Your task to perform on an android device: Clear the shopping cart on target.com. Search for logitech g502 on target.com, select the first entry, and add it to the cart. Image 0: 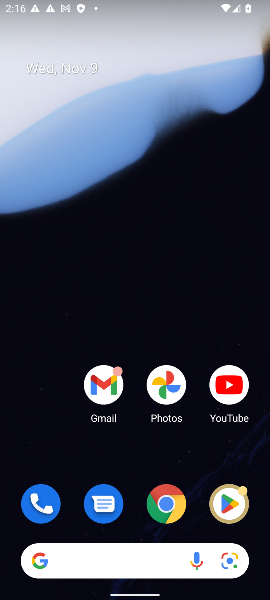
Step 0: click (168, 506)
Your task to perform on an android device: Clear the shopping cart on target.com. Search for logitech g502 on target.com, select the first entry, and add it to the cart. Image 1: 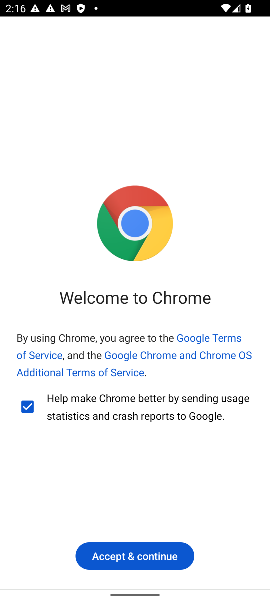
Step 1: click (141, 550)
Your task to perform on an android device: Clear the shopping cart on target.com. Search for logitech g502 on target.com, select the first entry, and add it to the cart. Image 2: 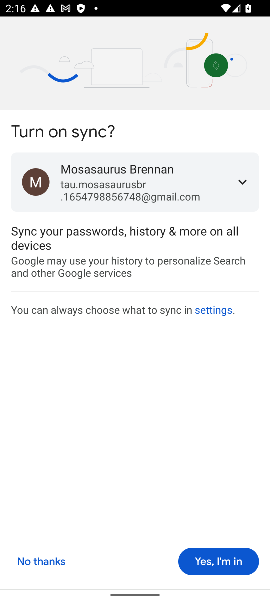
Step 2: click (196, 567)
Your task to perform on an android device: Clear the shopping cart on target.com. Search for logitech g502 on target.com, select the first entry, and add it to the cart. Image 3: 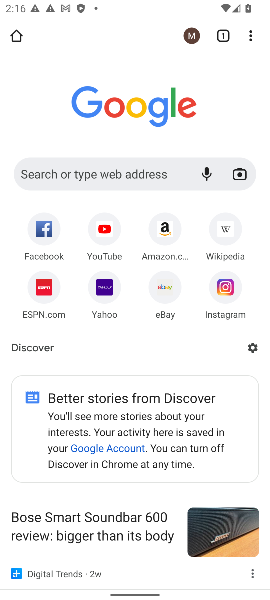
Step 3: click (96, 176)
Your task to perform on an android device: Clear the shopping cart on target.com. Search for logitech g502 on target.com, select the first entry, and add it to the cart. Image 4: 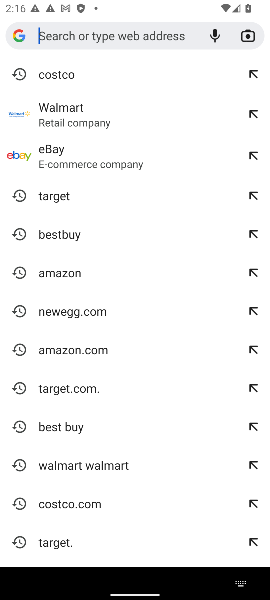
Step 4: click (57, 392)
Your task to perform on an android device: Clear the shopping cart on target.com. Search for logitech g502 on target.com, select the first entry, and add it to the cart. Image 5: 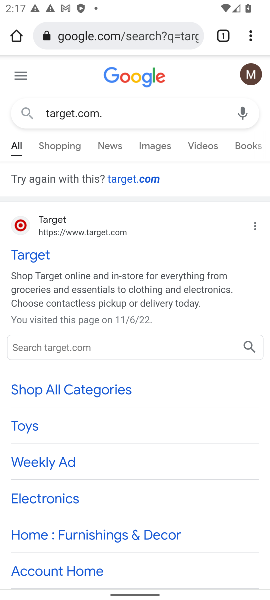
Step 5: click (20, 260)
Your task to perform on an android device: Clear the shopping cart on target.com. Search for logitech g502 on target.com, select the first entry, and add it to the cart. Image 6: 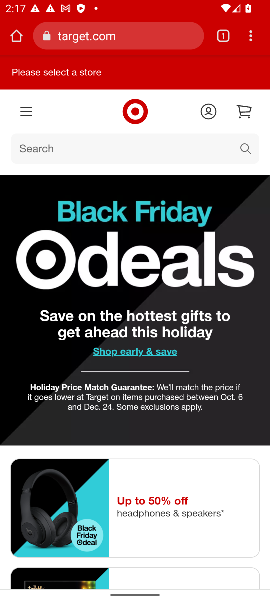
Step 6: click (251, 117)
Your task to perform on an android device: Clear the shopping cart on target.com. Search for logitech g502 on target.com, select the first entry, and add it to the cart. Image 7: 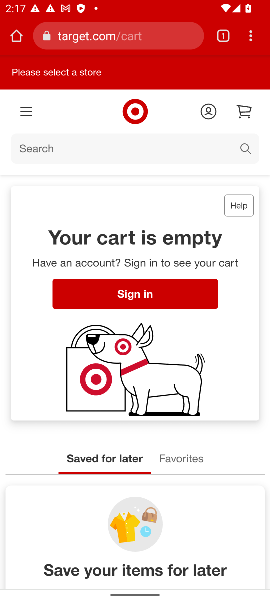
Step 7: click (247, 150)
Your task to perform on an android device: Clear the shopping cart on target.com. Search for logitech g502 on target.com, select the first entry, and add it to the cart. Image 8: 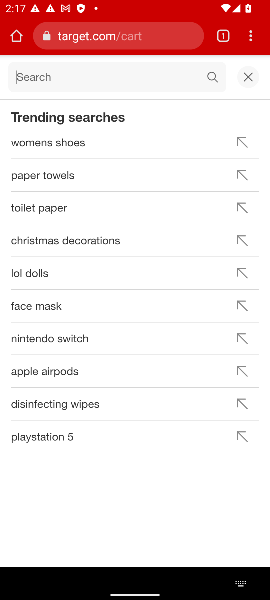
Step 8: type "logitech g502"
Your task to perform on an android device: Clear the shopping cart on target.com. Search for logitech g502 on target.com, select the first entry, and add it to the cart. Image 9: 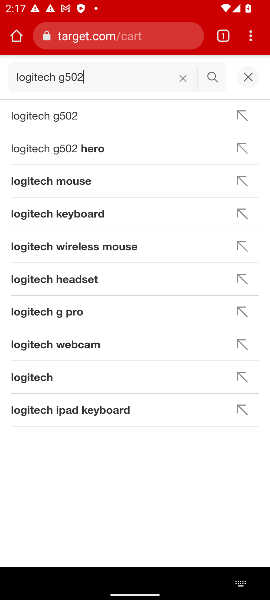
Step 9: click (38, 119)
Your task to perform on an android device: Clear the shopping cart on target.com. Search for logitech g502 on target.com, select the first entry, and add it to the cart. Image 10: 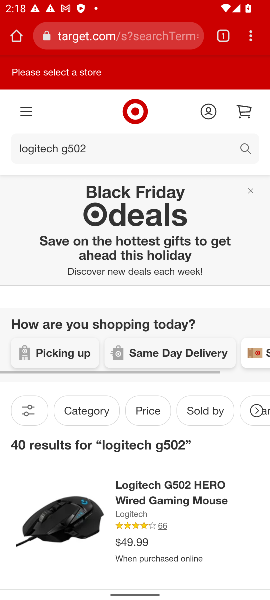
Step 10: drag from (95, 466) to (92, 304)
Your task to perform on an android device: Clear the shopping cart on target.com. Search for logitech g502 on target.com, select the first entry, and add it to the cart. Image 11: 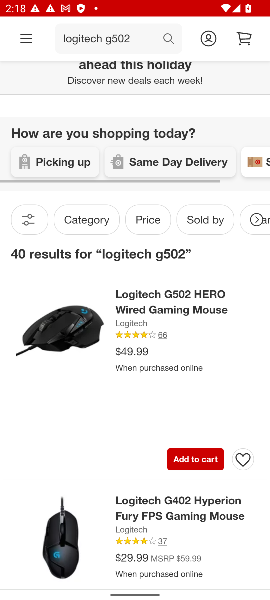
Step 11: click (151, 356)
Your task to perform on an android device: Clear the shopping cart on target.com. Search for logitech g502 on target.com, select the first entry, and add it to the cart. Image 12: 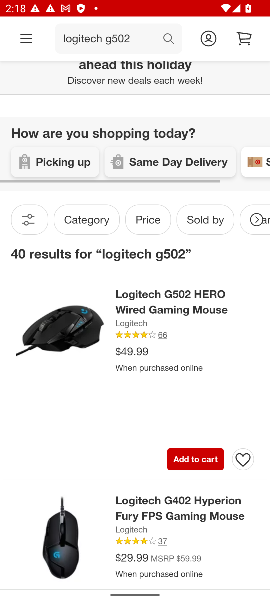
Step 12: click (78, 325)
Your task to perform on an android device: Clear the shopping cart on target.com. Search for logitech g502 on target.com, select the first entry, and add it to the cart. Image 13: 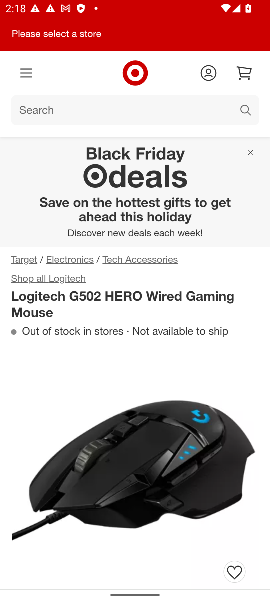
Step 13: drag from (127, 403) to (121, 218)
Your task to perform on an android device: Clear the shopping cart on target.com. Search for logitech g502 on target.com, select the first entry, and add it to the cart. Image 14: 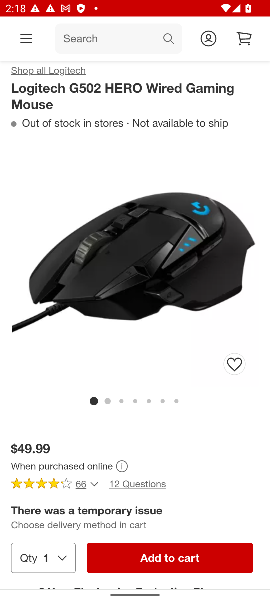
Step 14: drag from (102, 442) to (101, 289)
Your task to perform on an android device: Clear the shopping cart on target.com. Search for logitech g502 on target.com, select the first entry, and add it to the cart. Image 15: 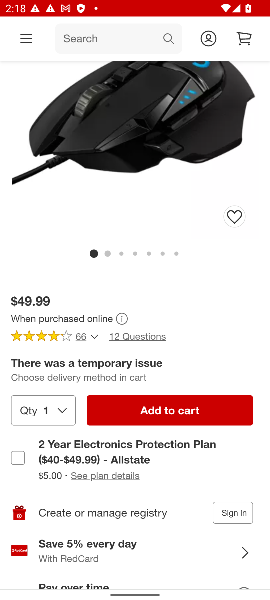
Step 15: click (157, 413)
Your task to perform on an android device: Clear the shopping cart on target.com. Search for logitech g502 on target.com, select the first entry, and add it to the cart. Image 16: 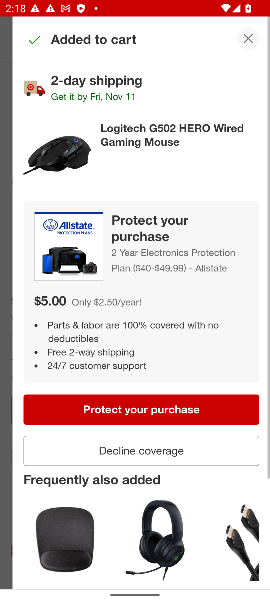
Step 16: task complete